Your task to perform on an android device: empty trash in the gmail app Image 0: 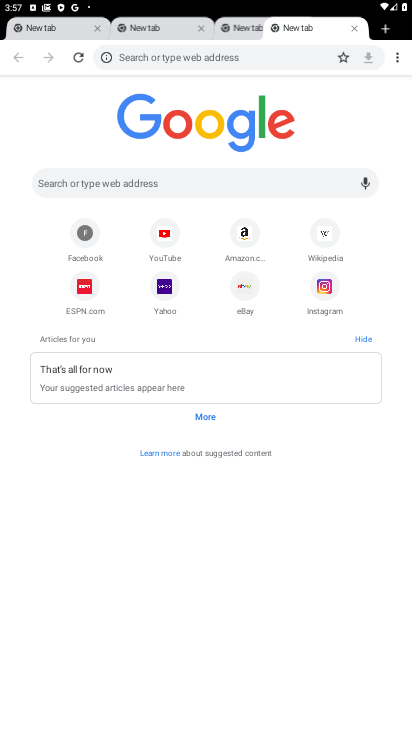
Step 0: press home button
Your task to perform on an android device: empty trash in the gmail app Image 1: 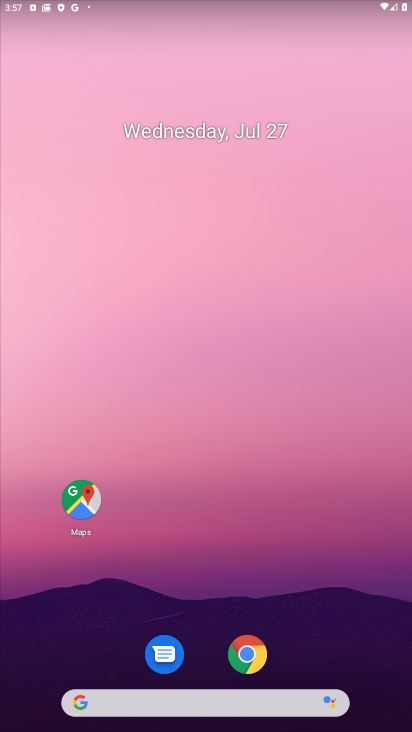
Step 1: drag from (218, 649) to (218, 152)
Your task to perform on an android device: empty trash in the gmail app Image 2: 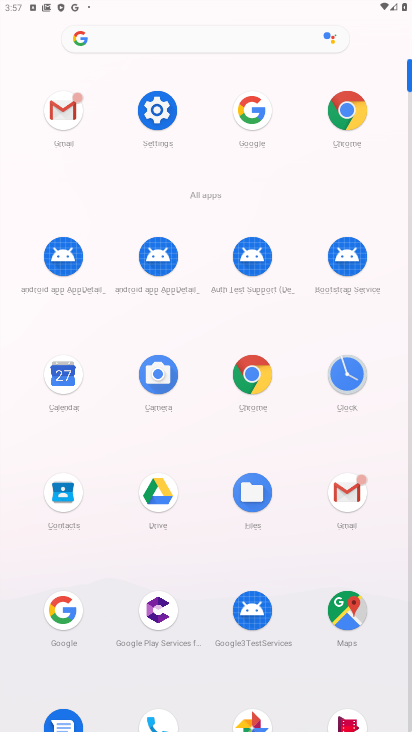
Step 2: click (66, 105)
Your task to perform on an android device: empty trash in the gmail app Image 3: 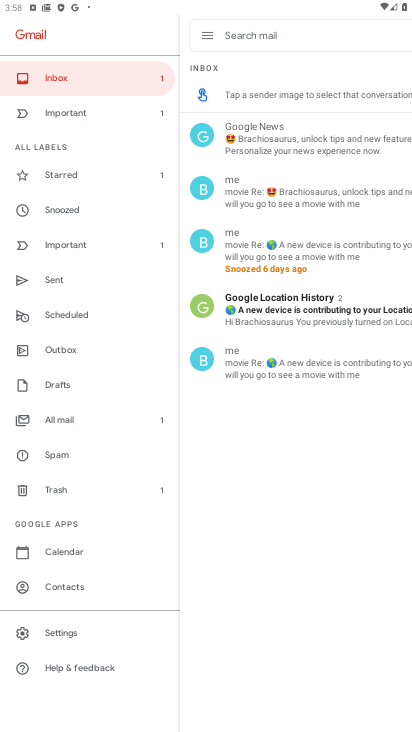
Step 3: click (62, 492)
Your task to perform on an android device: empty trash in the gmail app Image 4: 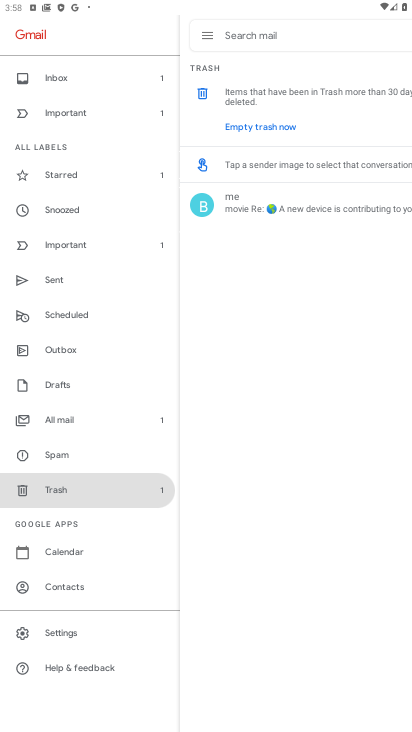
Step 4: task complete